Your task to perform on an android device: delete a single message in the gmail app Image 0: 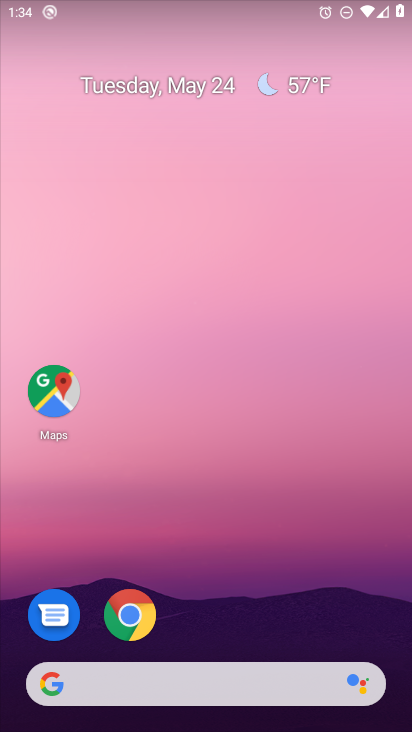
Step 0: drag from (205, 657) to (249, 182)
Your task to perform on an android device: delete a single message in the gmail app Image 1: 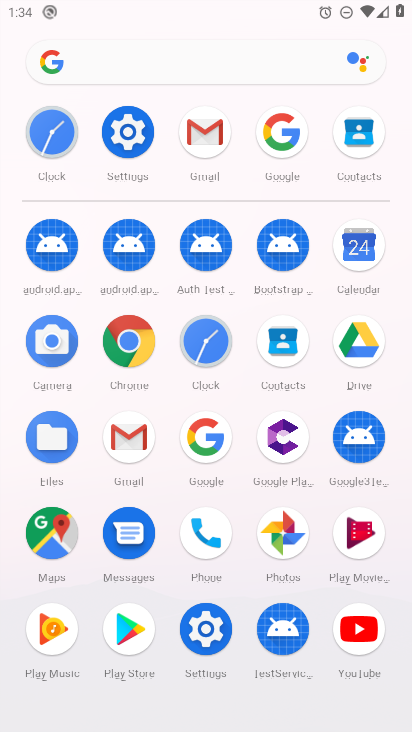
Step 1: click (213, 128)
Your task to perform on an android device: delete a single message in the gmail app Image 2: 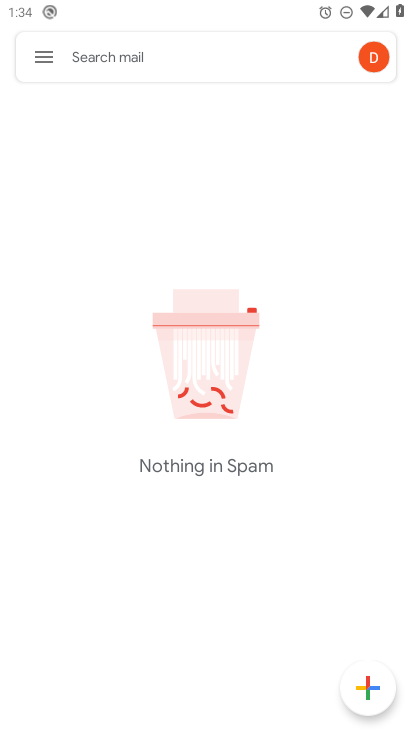
Step 2: click (39, 61)
Your task to perform on an android device: delete a single message in the gmail app Image 3: 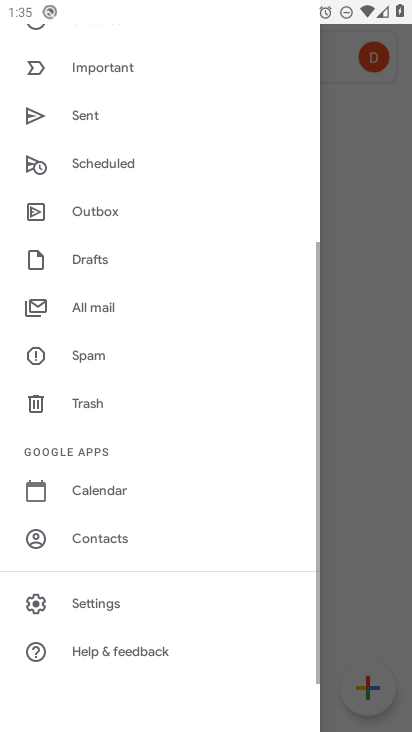
Step 3: drag from (119, 84) to (144, 583)
Your task to perform on an android device: delete a single message in the gmail app Image 4: 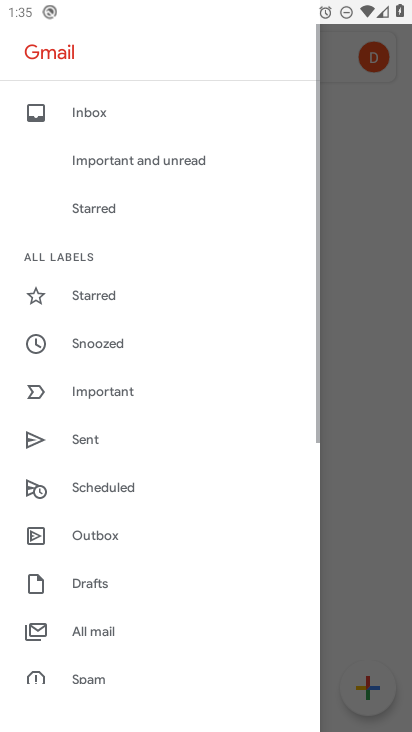
Step 4: click (106, 112)
Your task to perform on an android device: delete a single message in the gmail app Image 5: 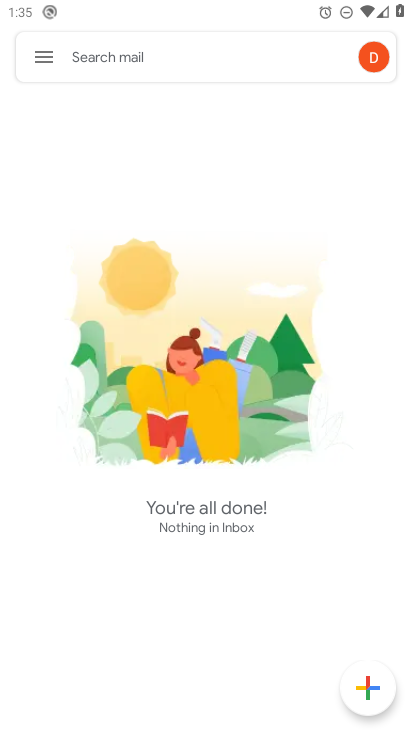
Step 5: task complete